Your task to perform on an android device: search for starred emails in the gmail app Image 0: 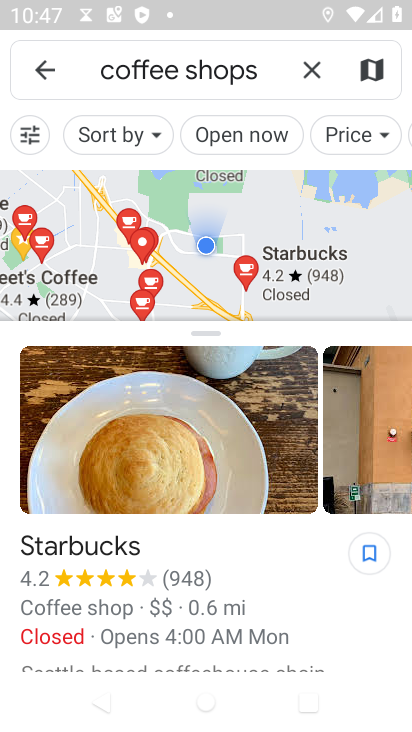
Step 0: press back button
Your task to perform on an android device: search for starred emails in the gmail app Image 1: 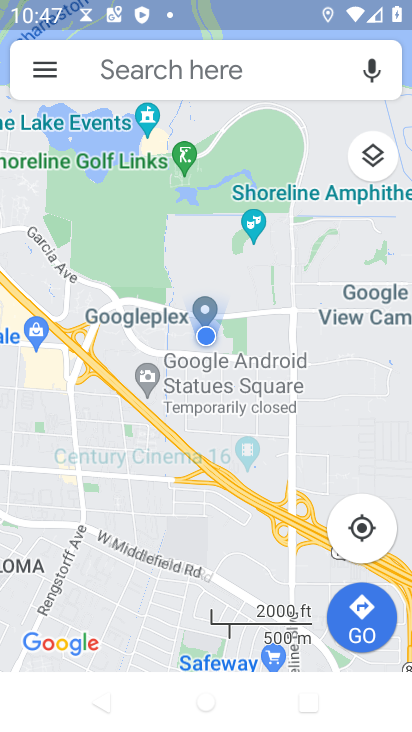
Step 1: press back button
Your task to perform on an android device: search for starred emails in the gmail app Image 2: 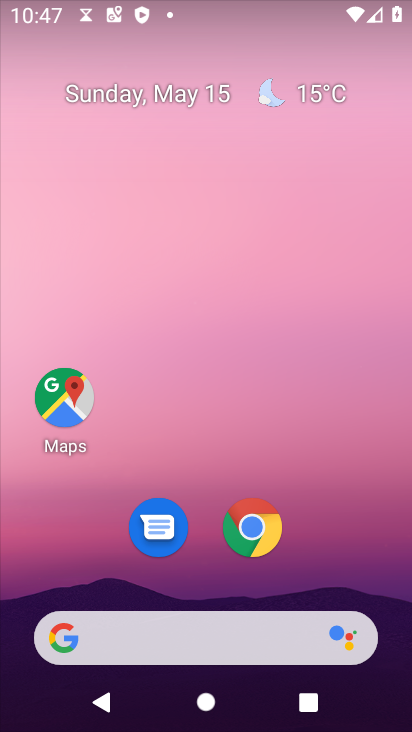
Step 2: drag from (330, 571) to (263, 147)
Your task to perform on an android device: search for starred emails in the gmail app Image 3: 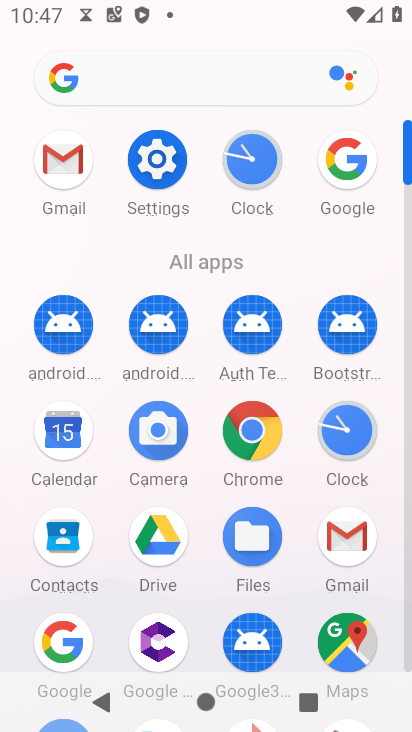
Step 3: click (62, 159)
Your task to perform on an android device: search for starred emails in the gmail app Image 4: 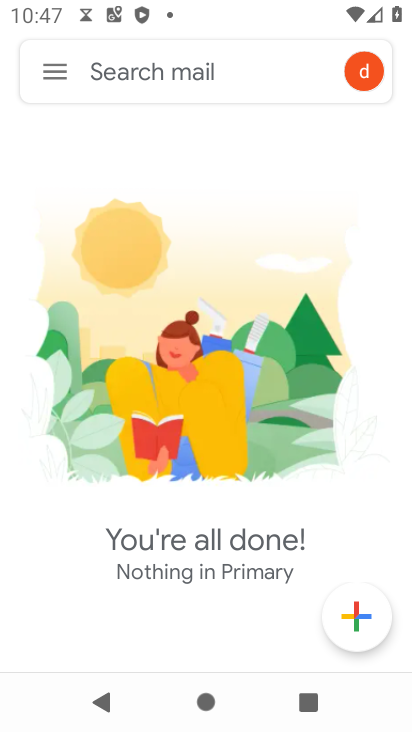
Step 4: click (148, 59)
Your task to perform on an android device: search for starred emails in the gmail app Image 5: 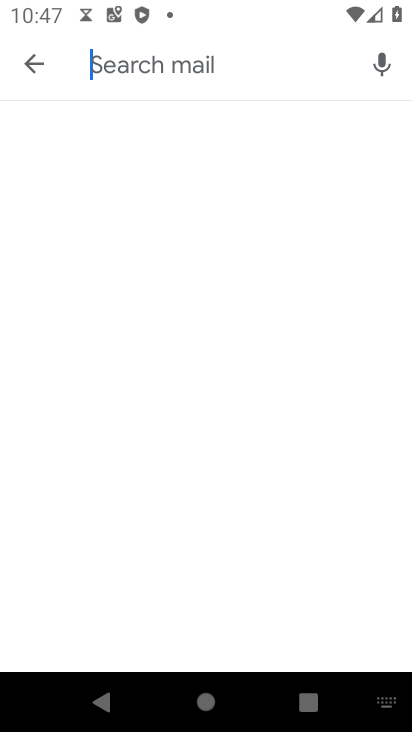
Step 5: type "starred"
Your task to perform on an android device: search for starred emails in the gmail app Image 6: 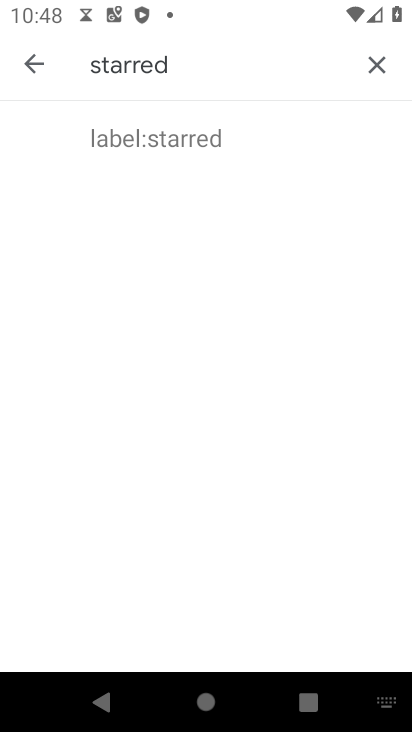
Step 6: click (188, 145)
Your task to perform on an android device: search for starred emails in the gmail app Image 7: 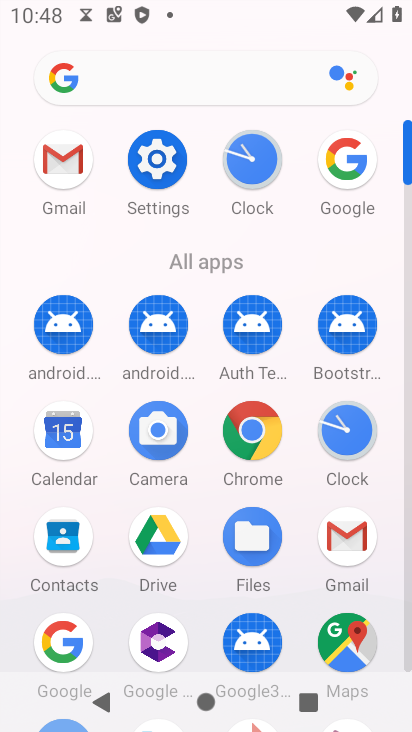
Step 7: task complete